Your task to perform on an android device: Open Google Maps and go to "Timeline" Image 0: 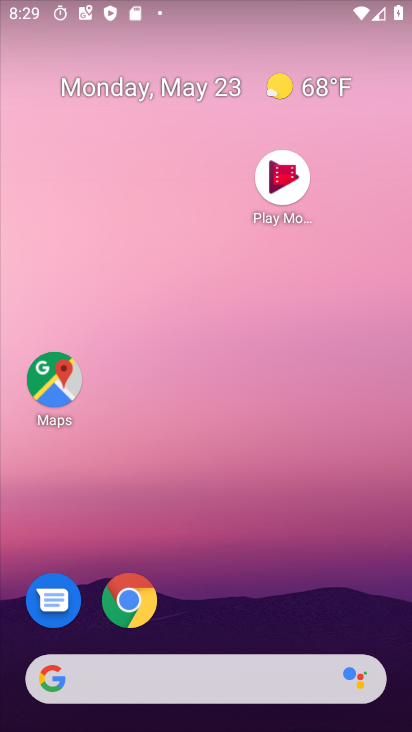
Step 0: drag from (321, 500) to (307, 170)
Your task to perform on an android device: Open Google Maps and go to "Timeline" Image 1: 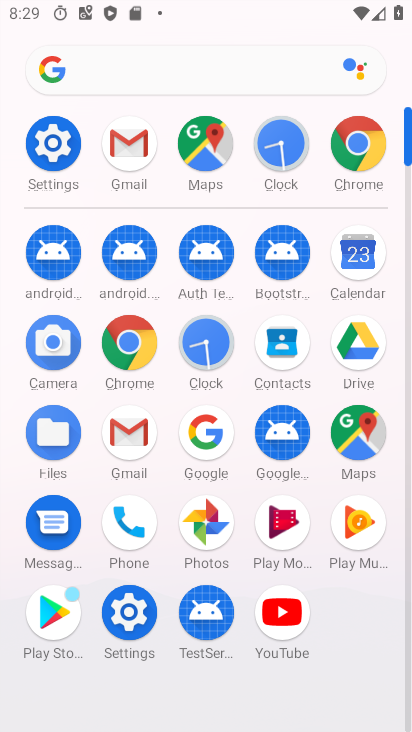
Step 1: click (366, 432)
Your task to perform on an android device: Open Google Maps and go to "Timeline" Image 2: 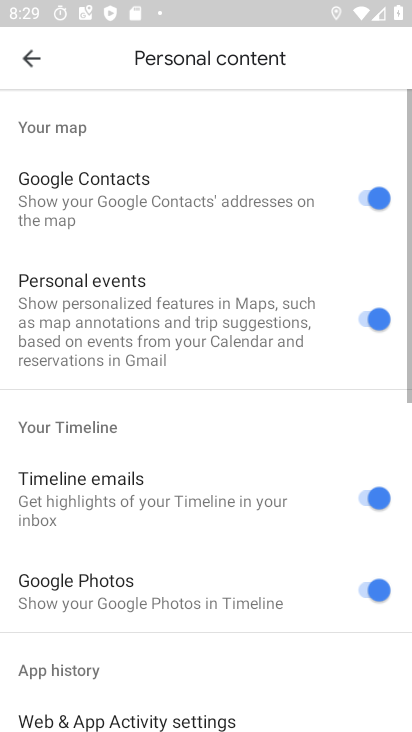
Step 2: click (36, 57)
Your task to perform on an android device: Open Google Maps and go to "Timeline" Image 3: 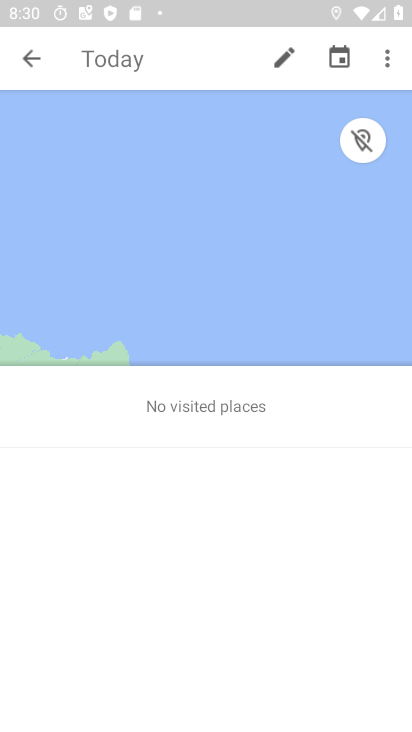
Step 3: click (36, 49)
Your task to perform on an android device: Open Google Maps and go to "Timeline" Image 4: 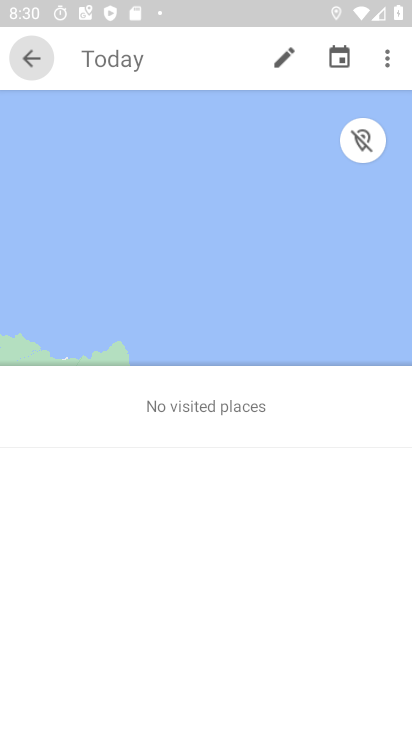
Step 4: click (29, 51)
Your task to perform on an android device: Open Google Maps and go to "Timeline" Image 5: 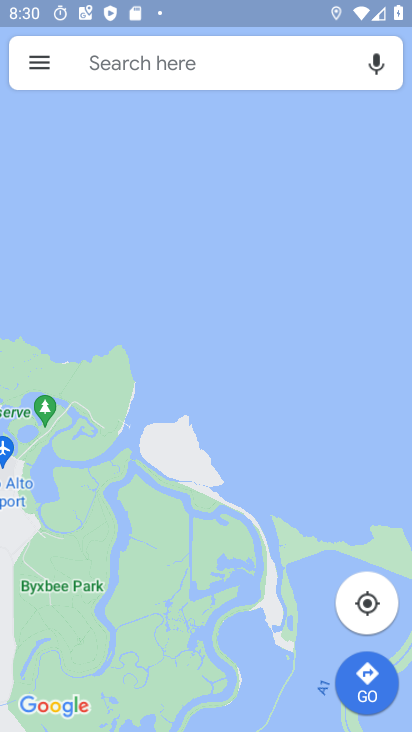
Step 5: click (33, 57)
Your task to perform on an android device: Open Google Maps and go to "Timeline" Image 6: 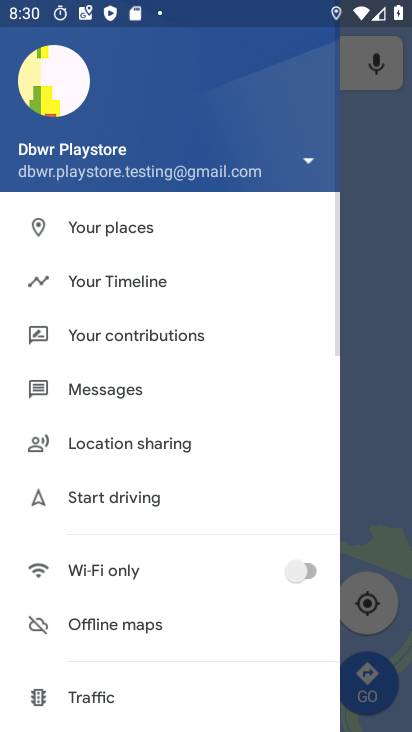
Step 6: click (135, 265)
Your task to perform on an android device: Open Google Maps and go to "Timeline" Image 7: 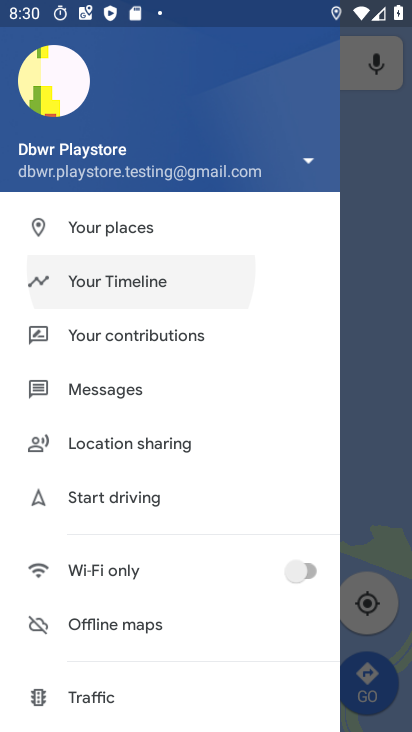
Step 7: click (135, 265)
Your task to perform on an android device: Open Google Maps and go to "Timeline" Image 8: 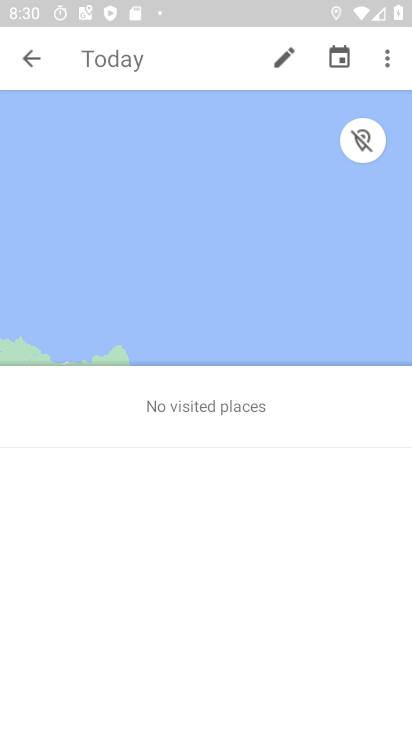
Step 8: task complete